Your task to perform on an android device: open a bookmark in the chrome app Image 0: 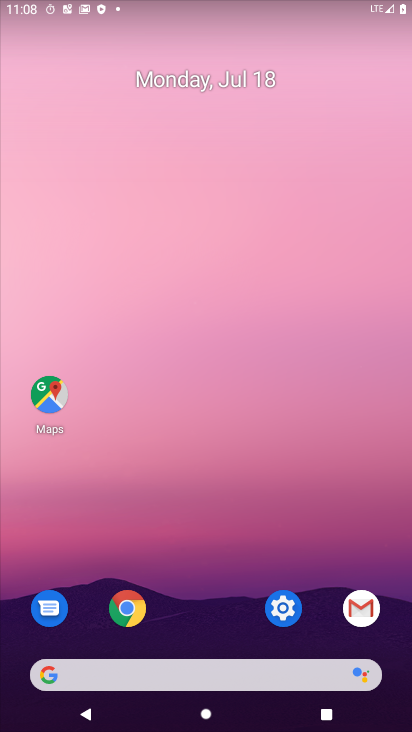
Step 0: click (136, 610)
Your task to perform on an android device: open a bookmark in the chrome app Image 1: 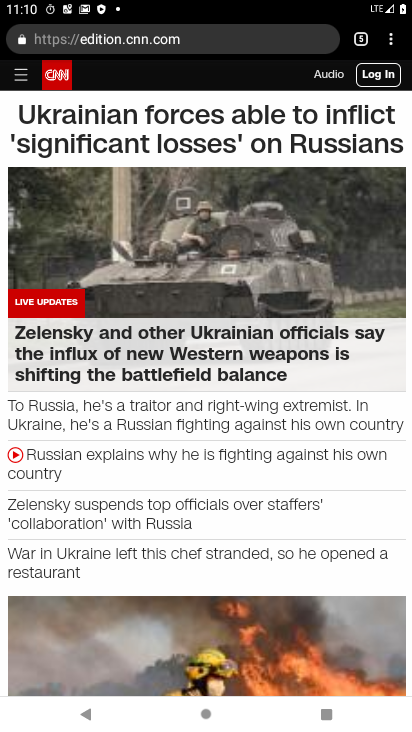
Step 1: task complete